Your task to perform on an android device: turn on notifications settings in the gmail app Image 0: 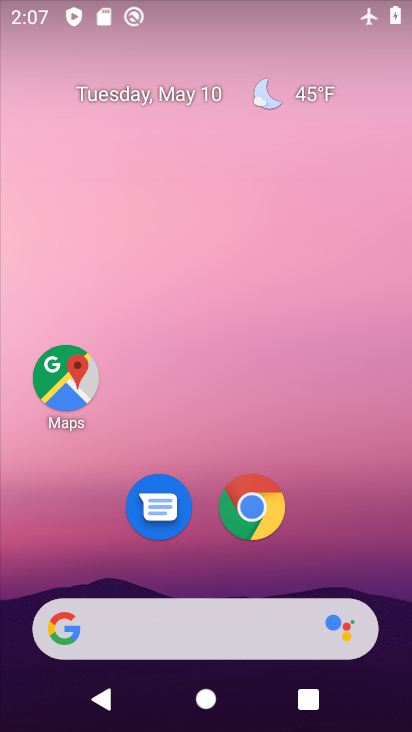
Step 0: drag from (350, 551) to (104, 142)
Your task to perform on an android device: turn on notifications settings in the gmail app Image 1: 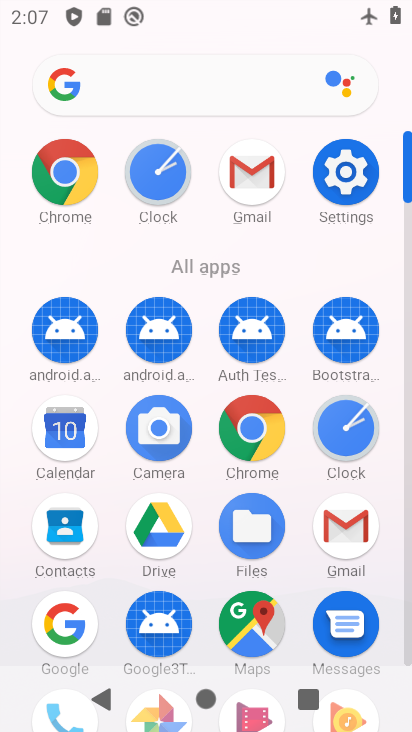
Step 1: click (341, 525)
Your task to perform on an android device: turn on notifications settings in the gmail app Image 2: 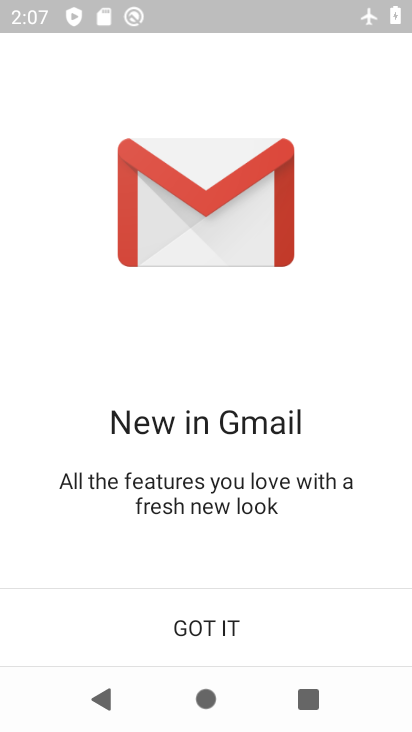
Step 2: click (211, 632)
Your task to perform on an android device: turn on notifications settings in the gmail app Image 3: 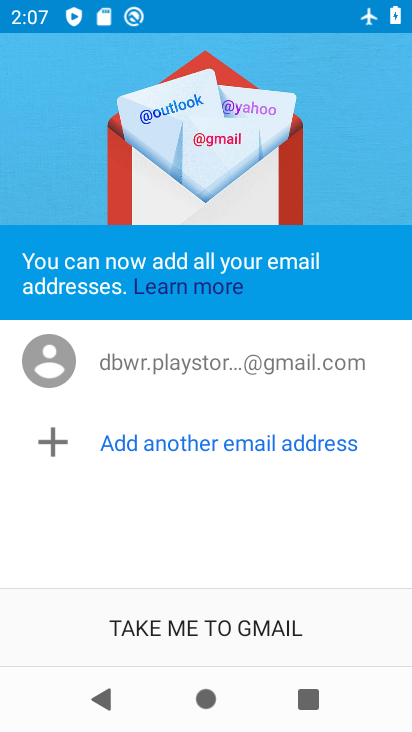
Step 3: click (214, 637)
Your task to perform on an android device: turn on notifications settings in the gmail app Image 4: 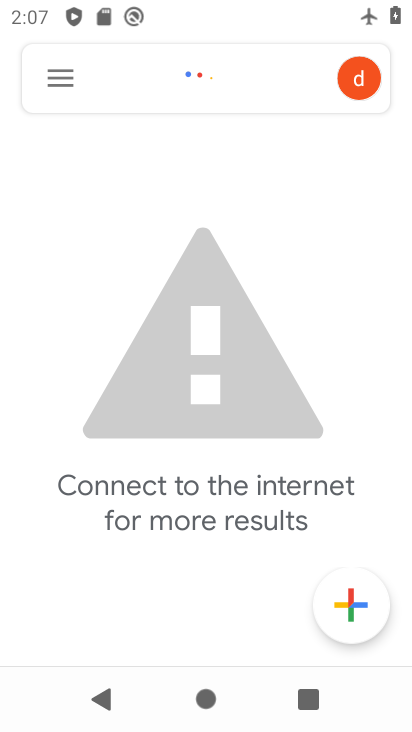
Step 4: click (63, 84)
Your task to perform on an android device: turn on notifications settings in the gmail app Image 5: 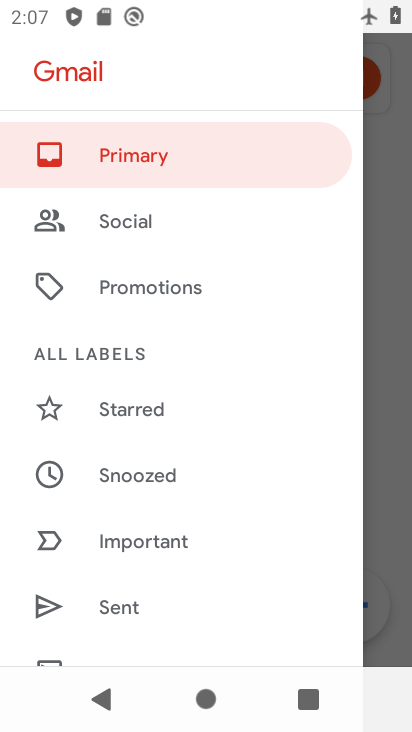
Step 5: drag from (147, 592) to (161, 232)
Your task to perform on an android device: turn on notifications settings in the gmail app Image 6: 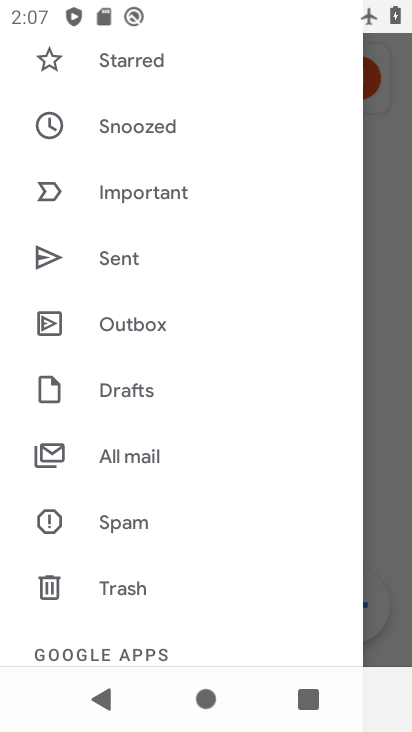
Step 6: drag from (118, 607) to (118, 260)
Your task to perform on an android device: turn on notifications settings in the gmail app Image 7: 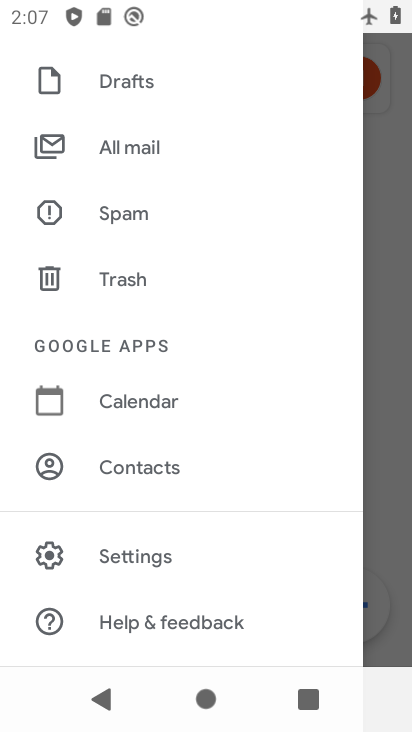
Step 7: click (124, 558)
Your task to perform on an android device: turn on notifications settings in the gmail app Image 8: 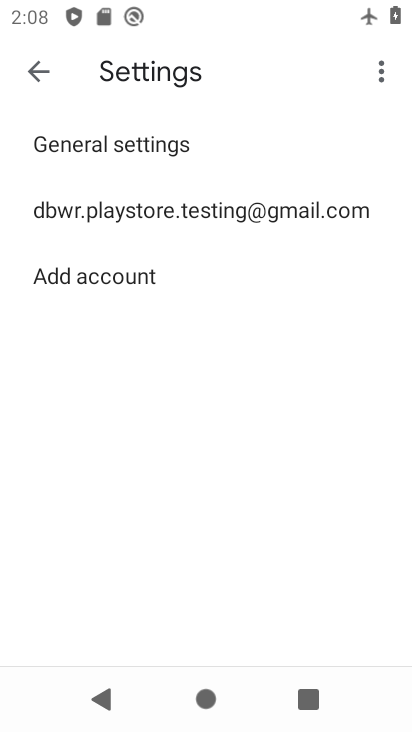
Step 8: click (118, 209)
Your task to perform on an android device: turn on notifications settings in the gmail app Image 9: 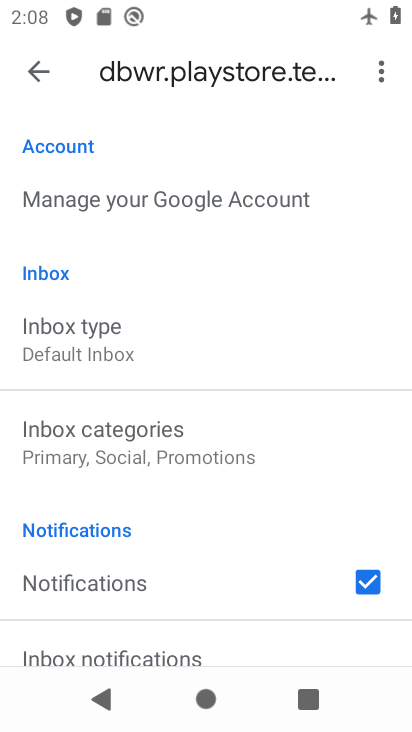
Step 9: drag from (76, 592) to (96, 320)
Your task to perform on an android device: turn on notifications settings in the gmail app Image 10: 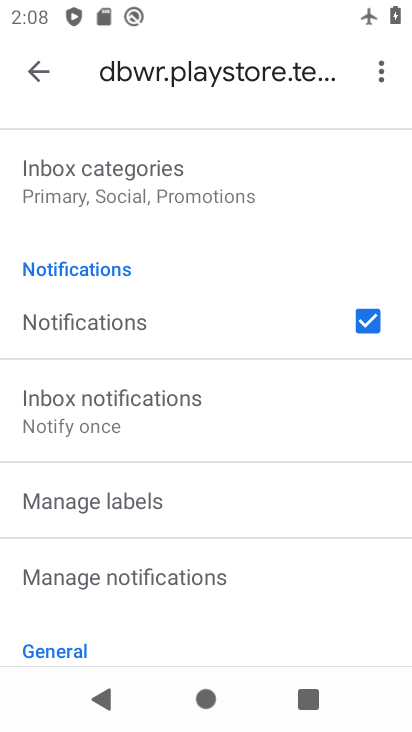
Step 10: click (119, 584)
Your task to perform on an android device: turn on notifications settings in the gmail app Image 11: 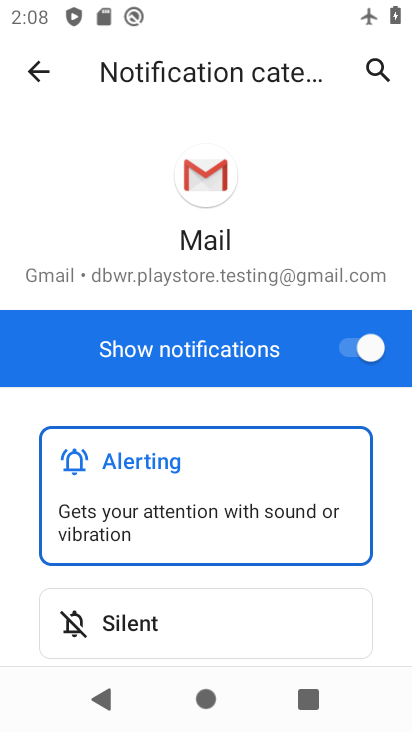
Step 11: task complete